Your task to perform on an android device: Is it going to rain this weekend? Image 0: 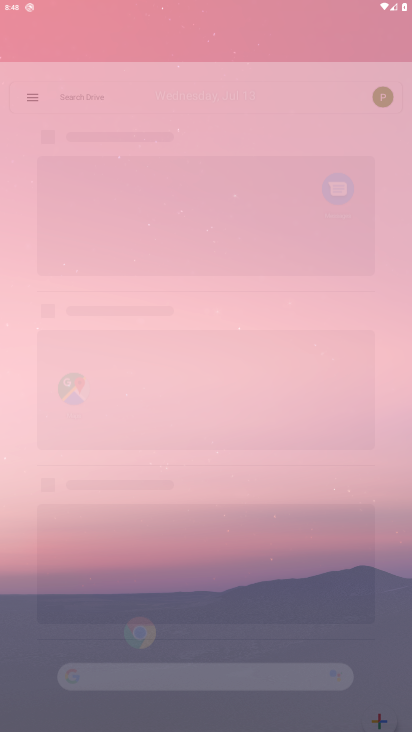
Step 0: click (132, 696)
Your task to perform on an android device: Is it going to rain this weekend? Image 1: 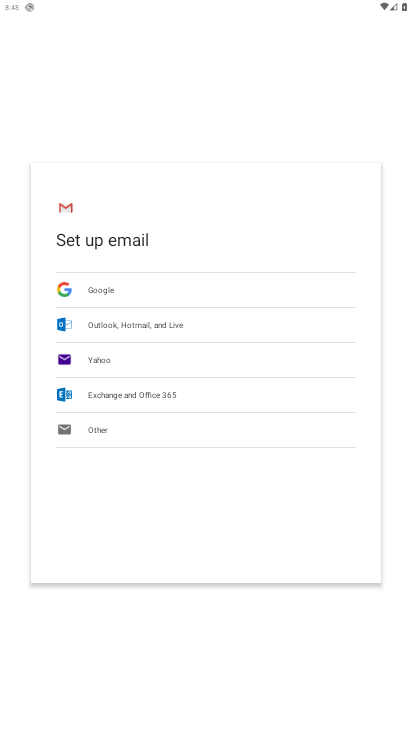
Step 1: press home button
Your task to perform on an android device: Is it going to rain this weekend? Image 2: 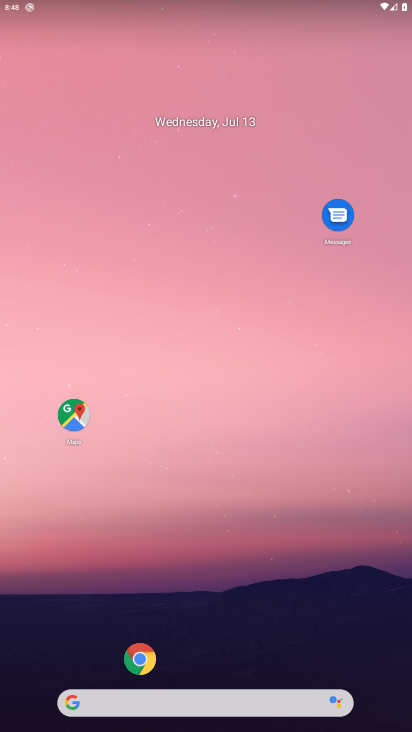
Step 2: click (119, 697)
Your task to perform on an android device: Is it going to rain this weekend? Image 3: 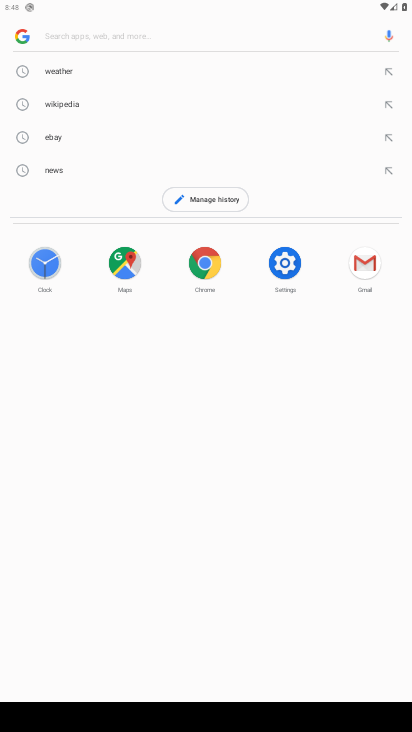
Step 3: type "Is it going to rain this weekend?"
Your task to perform on an android device: Is it going to rain this weekend? Image 4: 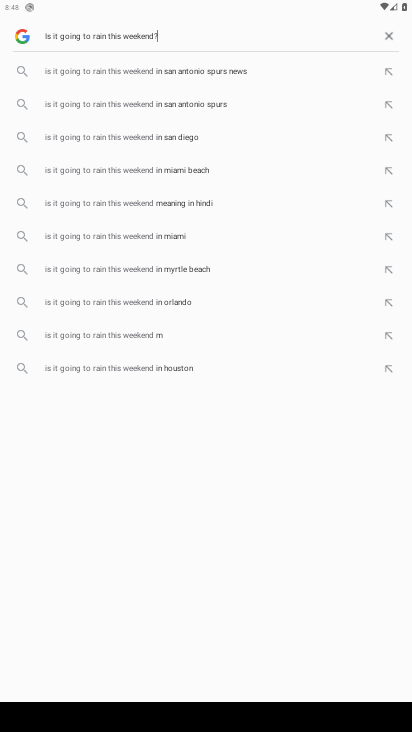
Step 4: type ""
Your task to perform on an android device: Is it going to rain this weekend? Image 5: 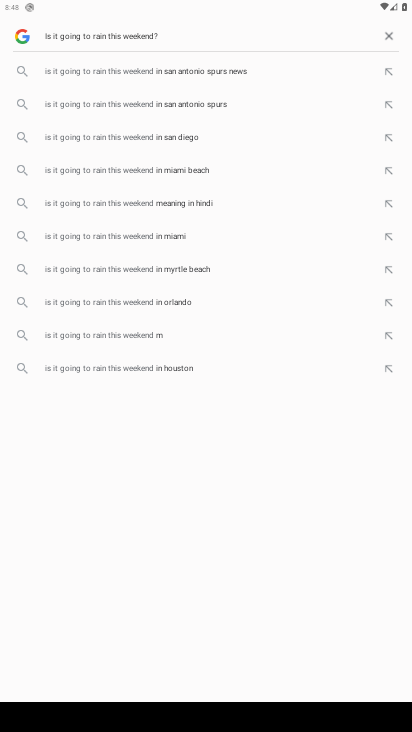
Step 5: type ""
Your task to perform on an android device: Is it going to rain this weekend? Image 6: 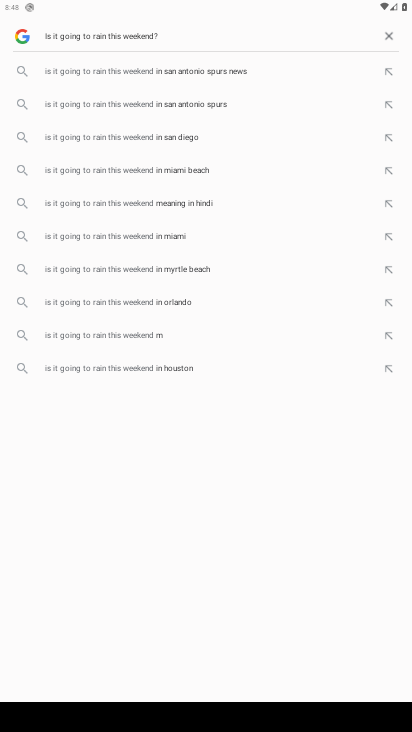
Step 6: type ""
Your task to perform on an android device: Is it going to rain this weekend? Image 7: 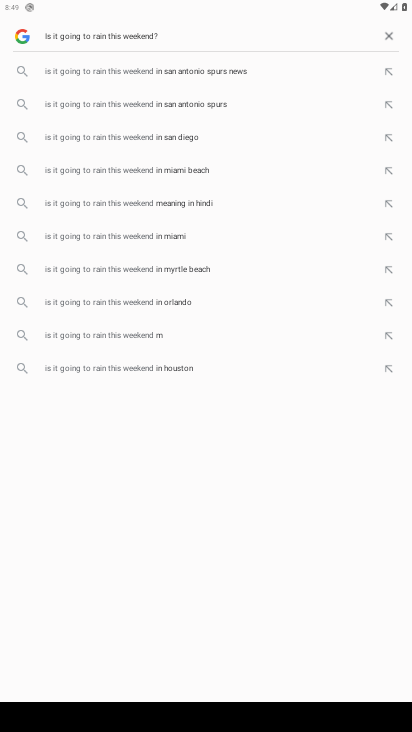
Step 7: task complete